Your task to perform on an android device: Play the last video I watched on Youtube Image 0: 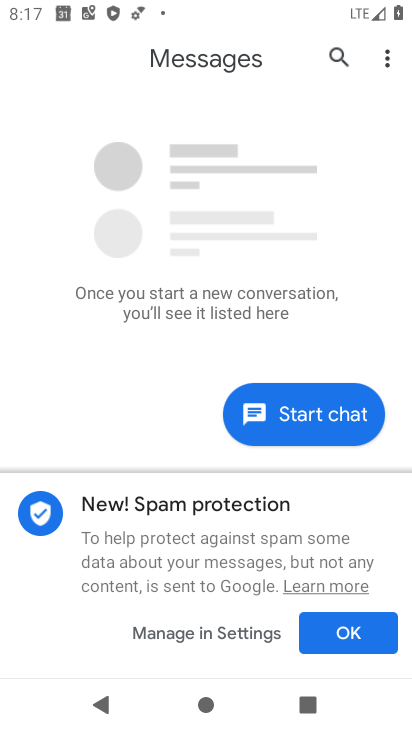
Step 0: press home button
Your task to perform on an android device: Play the last video I watched on Youtube Image 1: 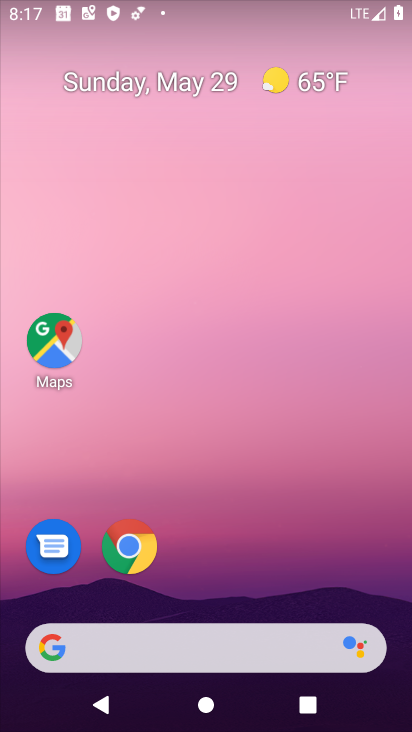
Step 1: drag from (167, 596) to (221, 163)
Your task to perform on an android device: Play the last video I watched on Youtube Image 2: 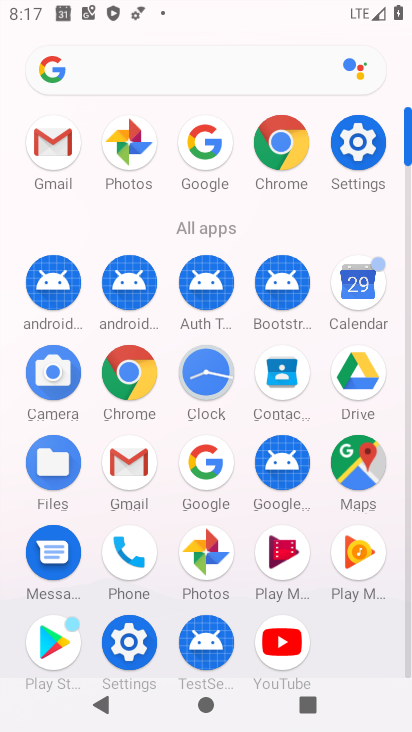
Step 2: click (270, 654)
Your task to perform on an android device: Play the last video I watched on Youtube Image 3: 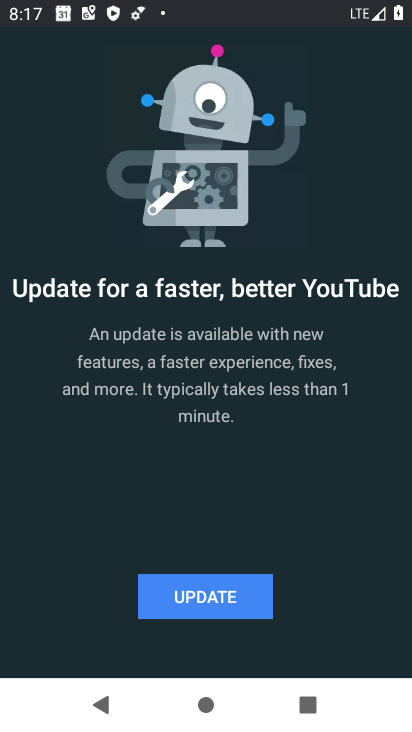
Step 3: task complete